Your task to perform on an android device: Go to ESPN.com Image 0: 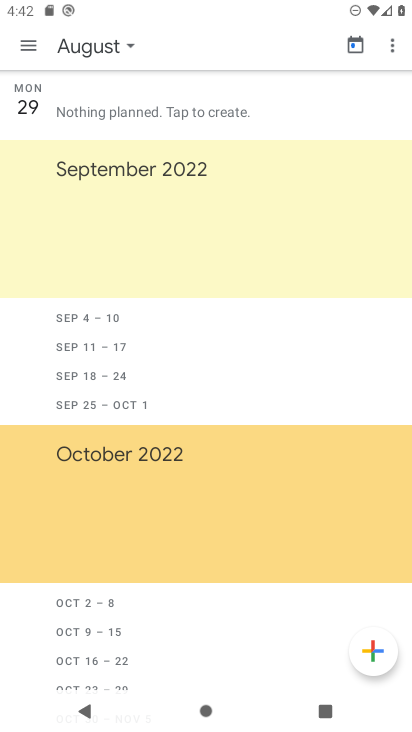
Step 0: press home button
Your task to perform on an android device: Go to ESPN.com Image 1: 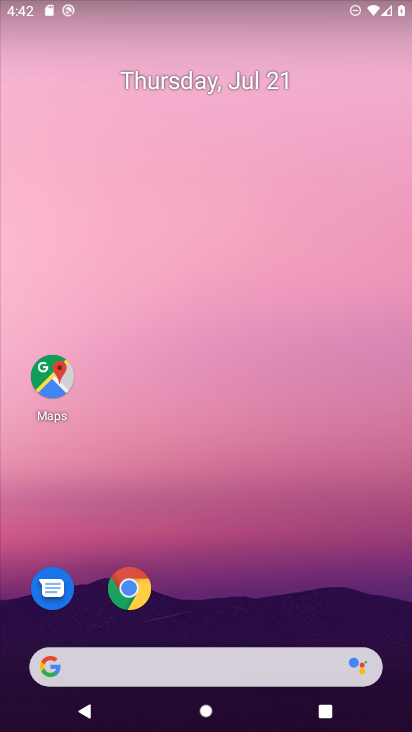
Step 1: drag from (280, 640) to (273, 167)
Your task to perform on an android device: Go to ESPN.com Image 2: 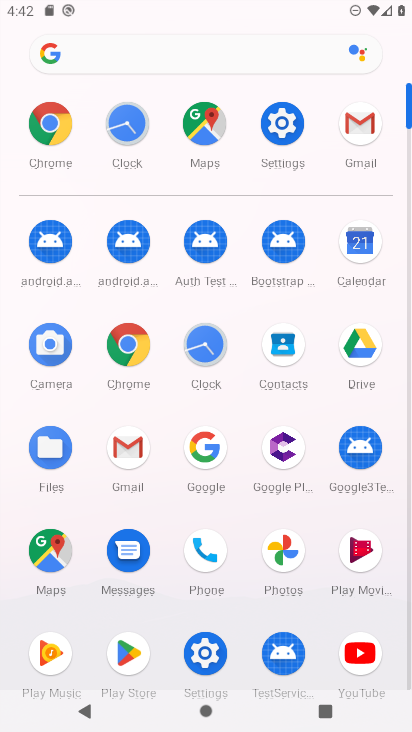
Step 2: click (70, 137)
Your task to perform on an android device: Go to ESPN.com Image 3: 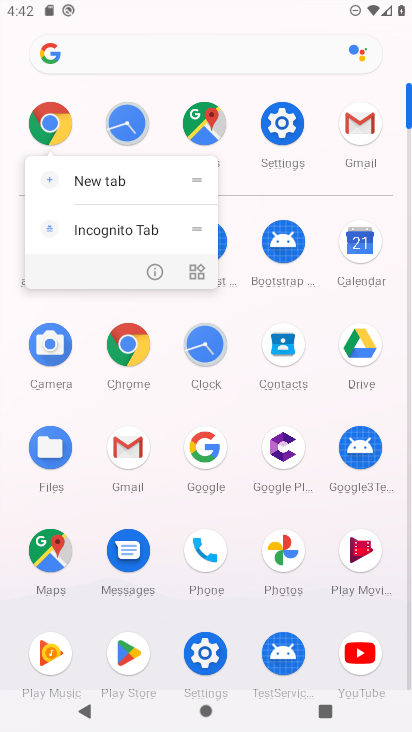
Step 3: click (45, 132)
Your task to perform on an android device: Go to ESPN.com Image 4: 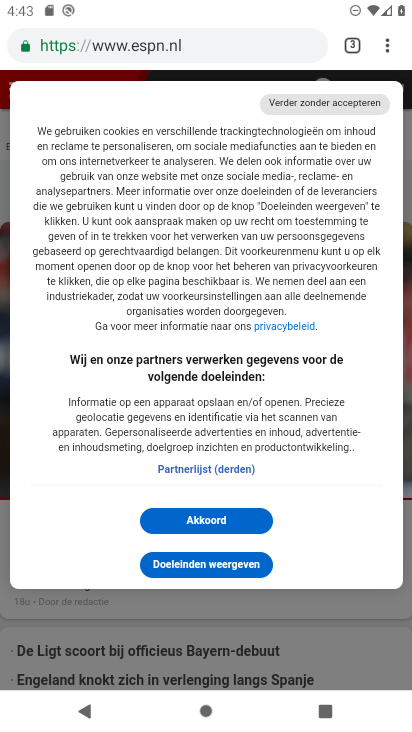
Step 4: click (200, 47)
Your task to perform on an android device: Go to ESPN.com Image 5: 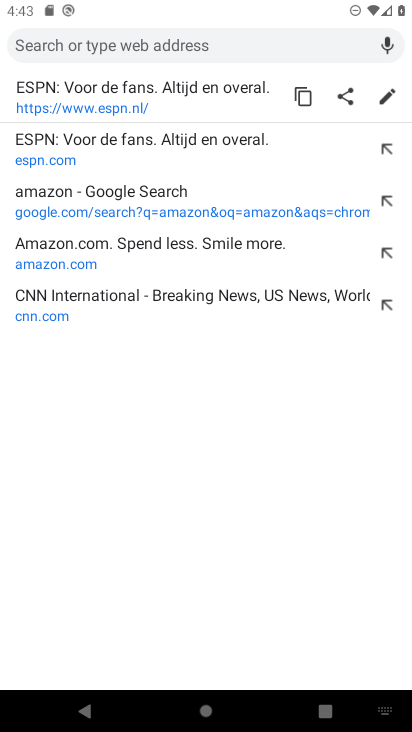
Step 5: task complete